Your task to perform on an android device: Go to location settings Image 0: 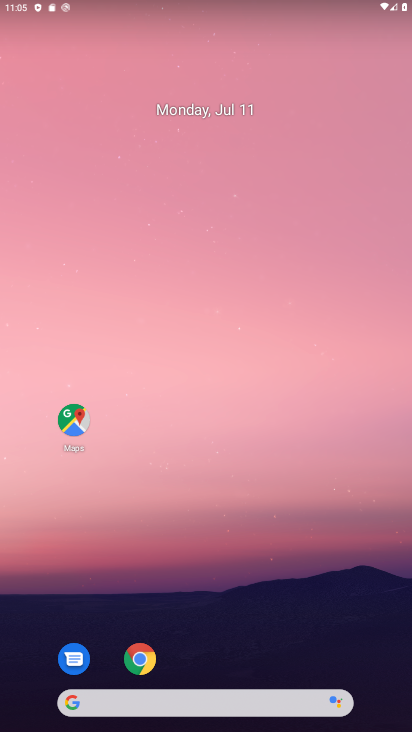
Step 0: drag from (314, 626) to (14, 227)
Your task to perform on an android device: Go to location settings Image 1: 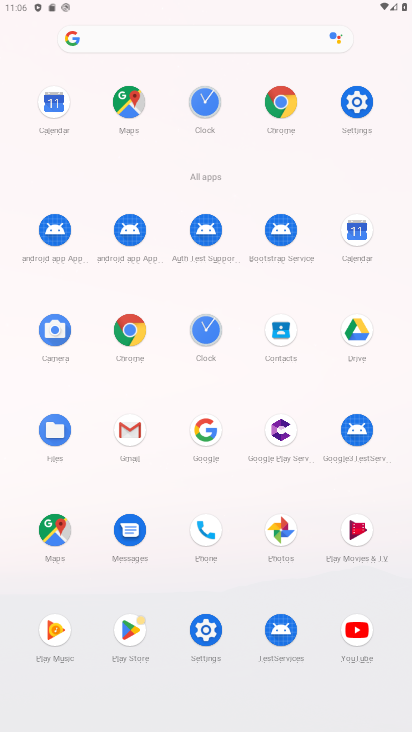
Step 1: click (349, 97)
Your task to perform on an android device: Go to location settings Image 2: 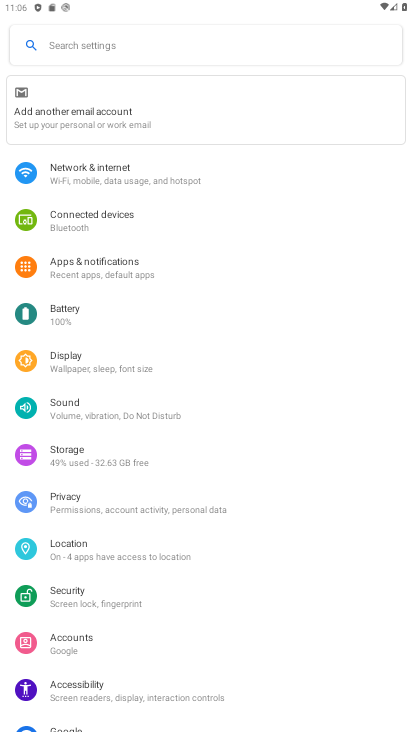
Step 2: click (106, 535)
Your task to perform on an android device: Go to location settings Image 3: 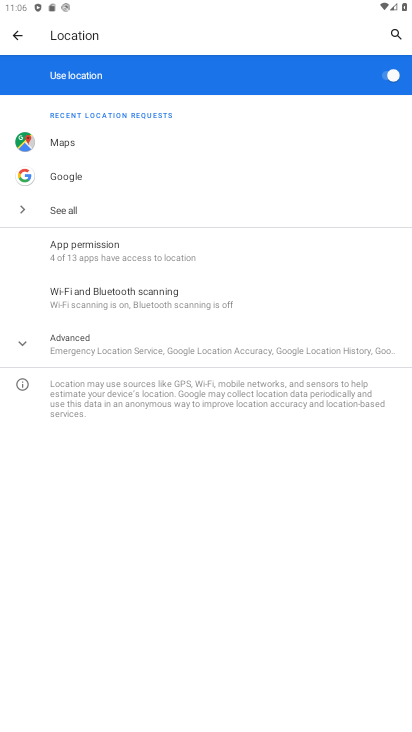
Step 3: task complete